Your task to perform on an android device: Open my contact list Image 0: 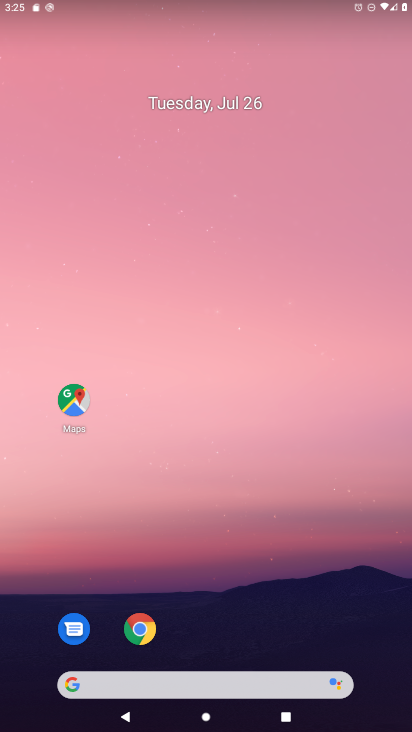
Step 0: drag from (209, 623) to (165, 244)
Your task to perform on an android device: Open my contact list Image 1: 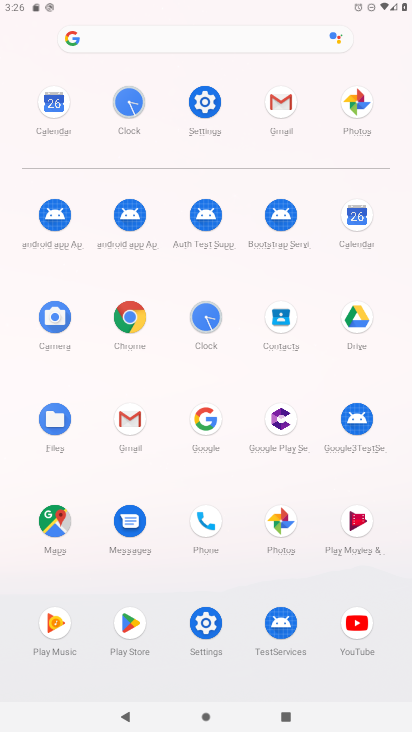
Step 1: click (282, 320)
Your task to perform on an android device: Open my contact list Image 2: 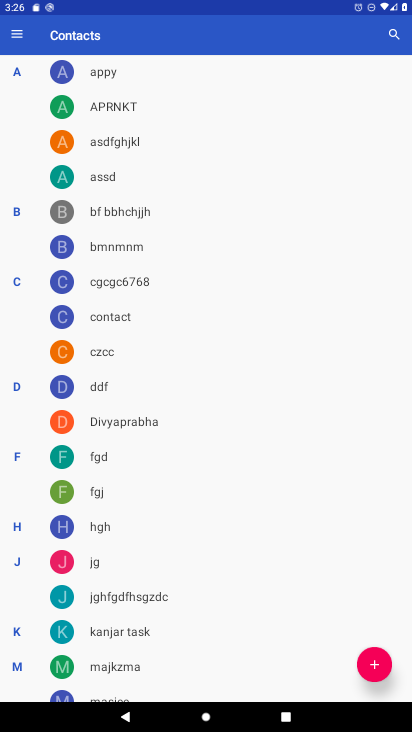
Step 2: task complete